Your task to perform on an android device: turn off airplane mode Image 0: 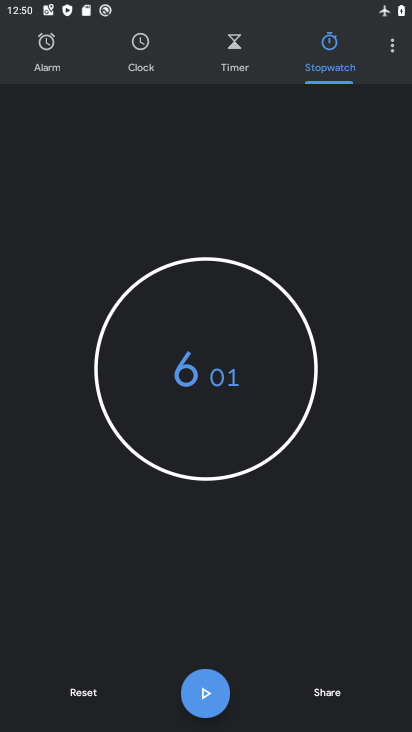
Step 0: press home button
Your task to perform on an android device: turn off airplane mode Image 1: 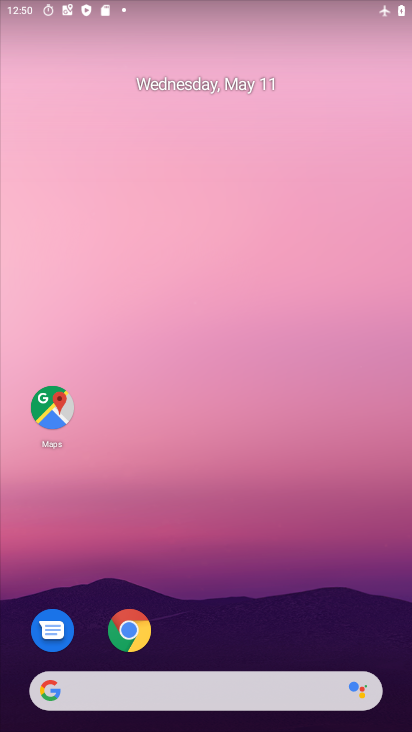
Step 1: drag from (293, 590) to (282, 160)
Your task to perform on an android device: turn off airplane mode Image 2: 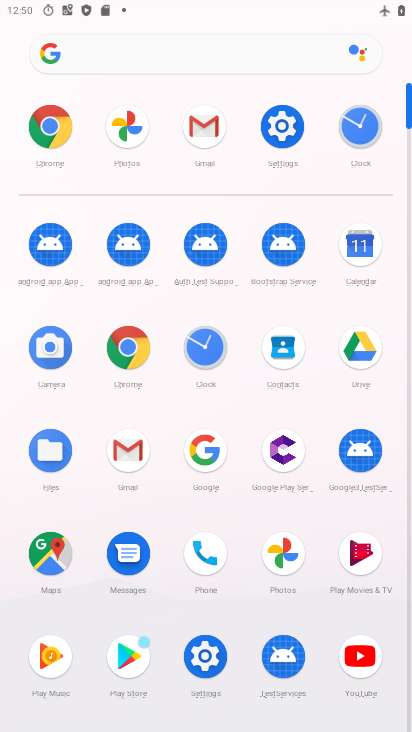
Step 2: click (276, 130)
Your task to perform on an android device: turn off airplane mode Image 3: 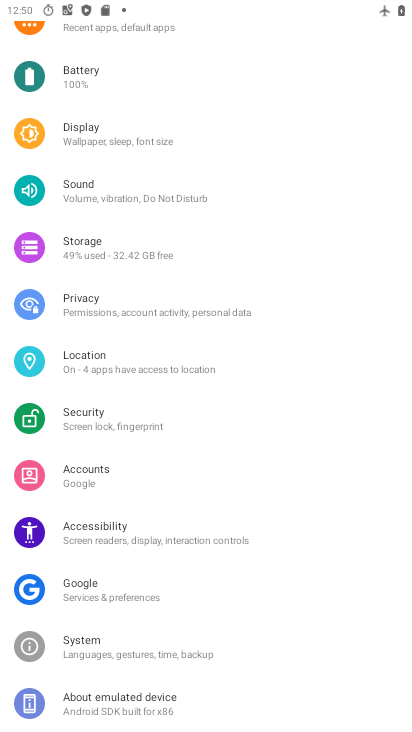
Step 3: drag from (138, 114) to (163, 696)
Your task to perform on an android device: turn off airplane mode Image 4: 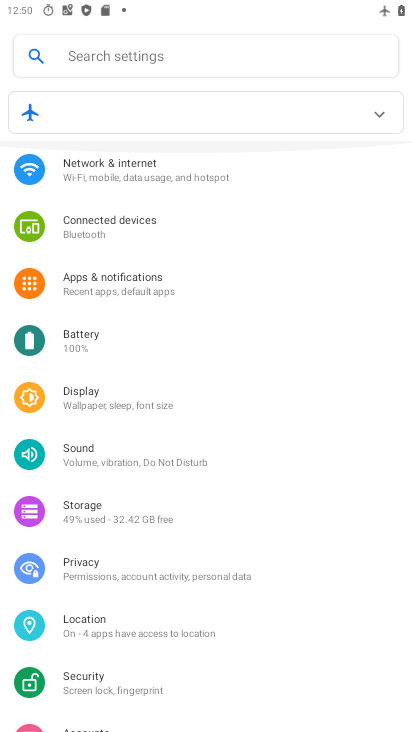
Step 4: drag from (191, 192) to (189, 572)
Your task to perform on an android device: turn off airplane mode Image 5: 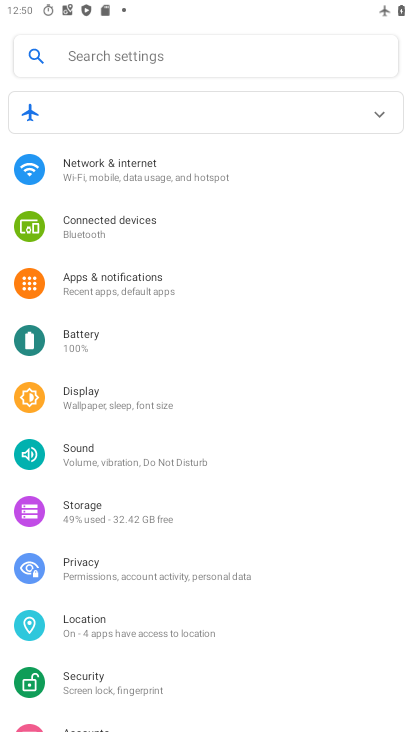
Step 5: click (180, 167)
Your task to perform on an android device: turn off airplane mode Image 6: 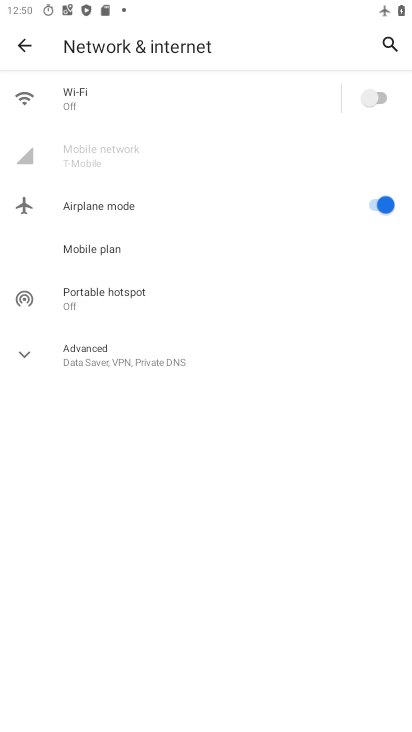
Step 6: click (367, 198)
Your task to perform on an android device: turn off airplane mode Image 7: 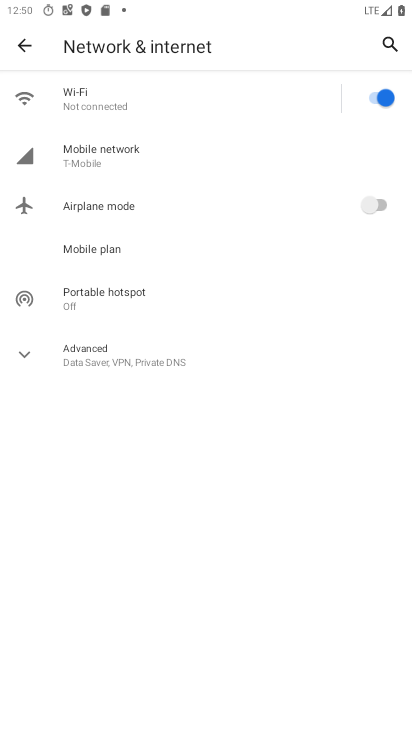
Step 7: task complete